Your task to perform on an android device: check the backup settings in the google photos Image 0: 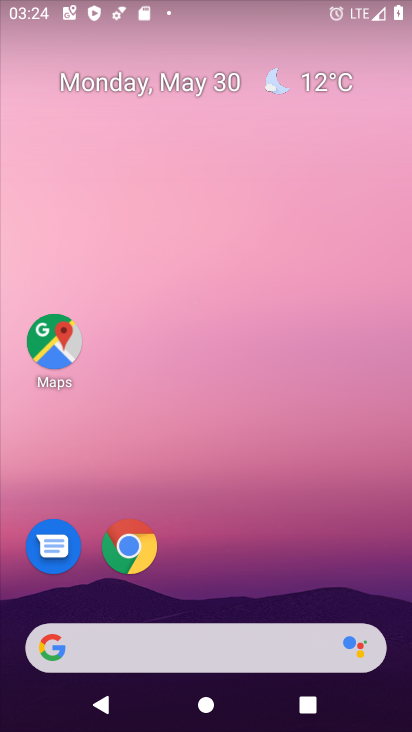
Step 0: press home button
Your task to perform on an android device: check the backup settings in the google photos Image 1: 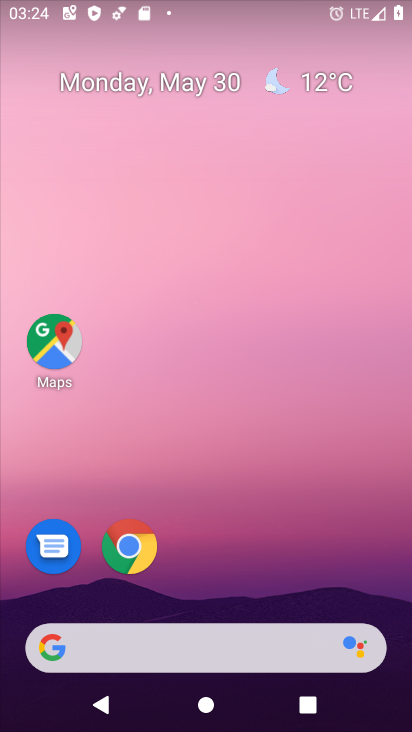
Step 1: drag from (229, 598) to (291, 51)
Your task to perform on an android device: check the backup settings in the google photos Image 2: 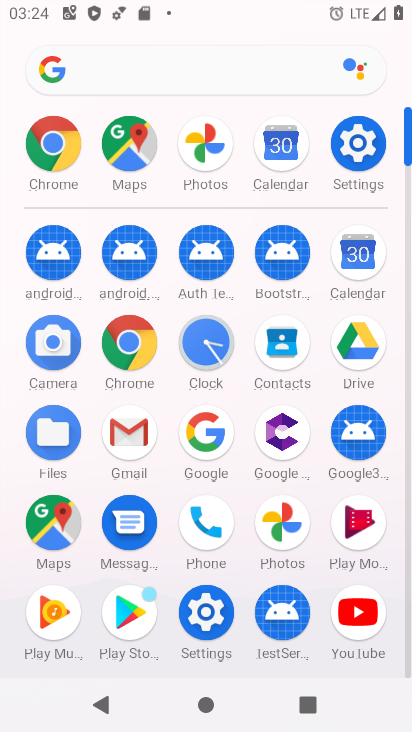
Step 2: click (277, 514)
Your task to perform on an android device: check the backup settings in the google photos Image 3: 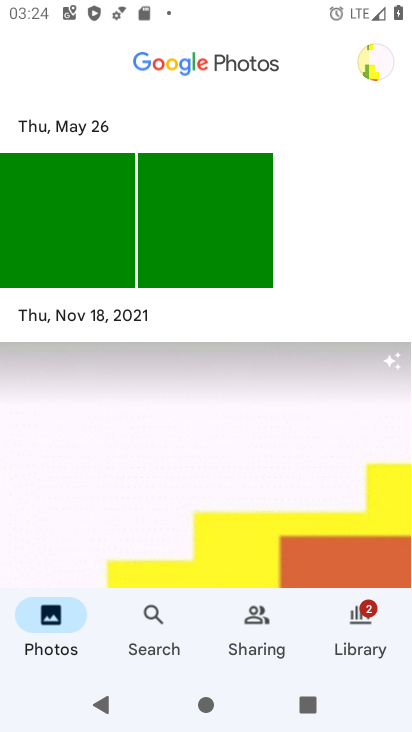
Step 3: click (371, 60)
Your task to perform on an android device: check the backup settings in the google photos Image 4: 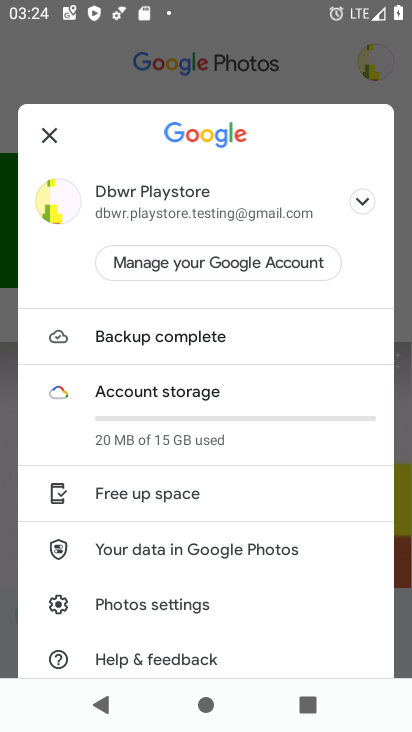
Step 4: click (222, 601)
Your task to perform on an android device: check the backup settings in the google photos Image 5: 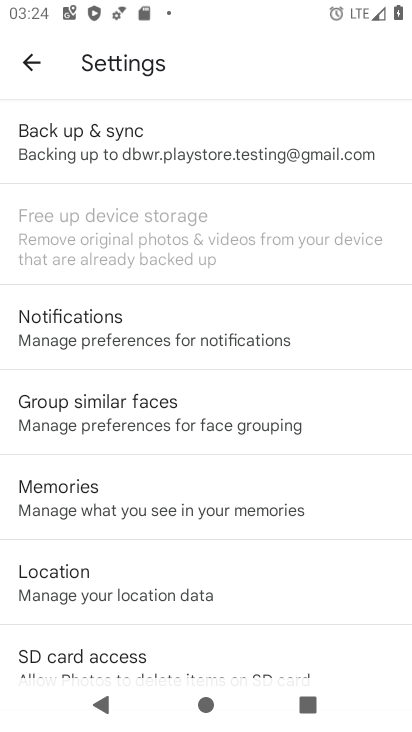
Step 5: click (186, 130)
Your task to perform on an android device: check the backup settings in the google photos Image 6: 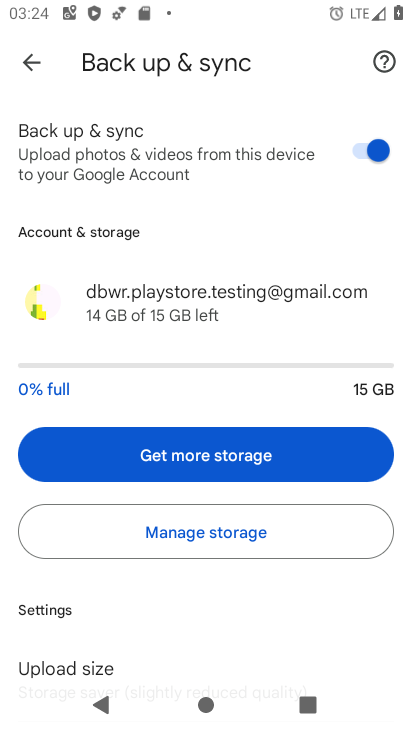
Step 6: task complete